Your task to perform on an android device: Play the last video I watched on Youtube Image 0: 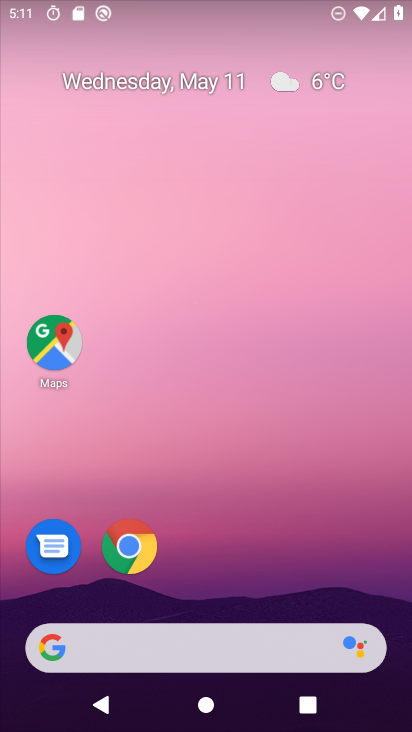
Step 0: drag from (210, 618) to (227, 184)
Your task to perform on an android device: Play the last video I watched on Youtube Image 1: 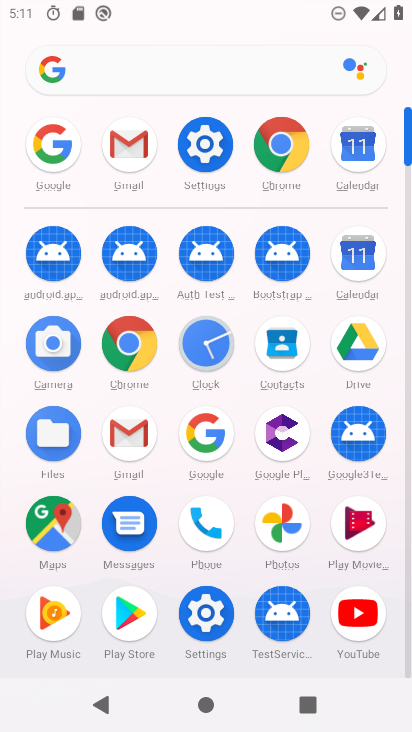
Step 1: click (360, 611)
Your task to perform on an android device: Play the last video I watched on Youtube Image 2: 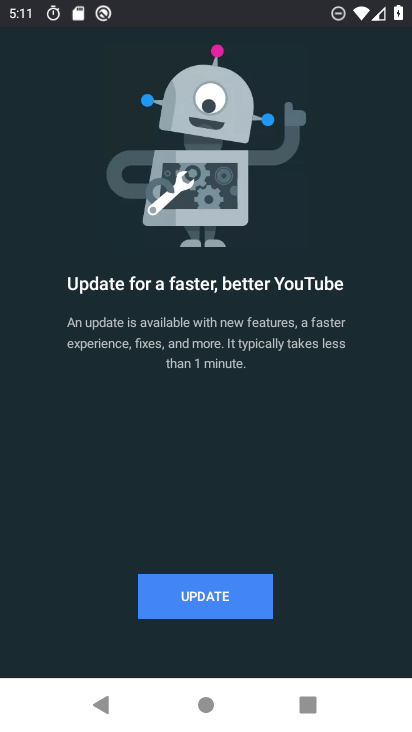
Step 2: click (214, 604)
Your task to perform on an android device: Play the last video I watched on Youtube Image 3: 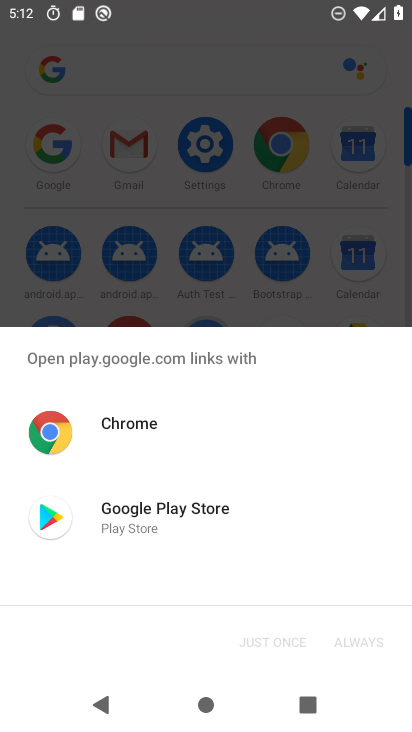
Step 3: click (158, 517)
Your task to perform on an android device: Play the last video I watched on Youtube Image 4: 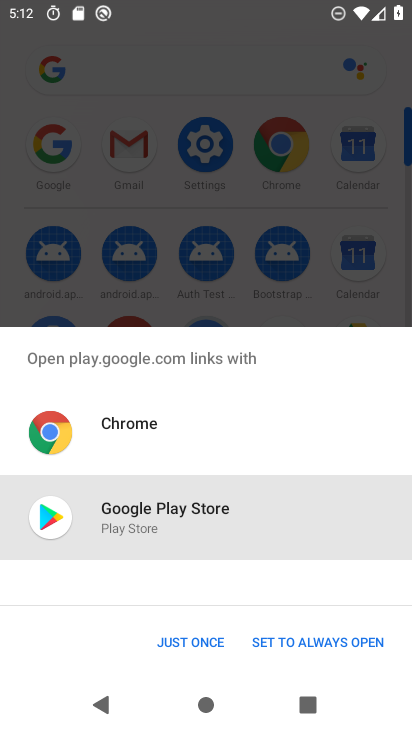
Step 4: click (295, 644)
Your task to perform on an android device: Play the last video I watched on Youtube Image 5: 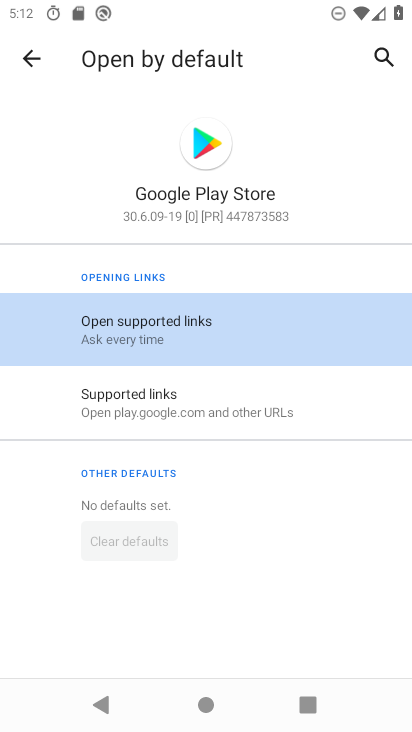
Step 5: click (199, 151)
Your task to perform on an android device: Play the last video I watched on Youtube Image 6: 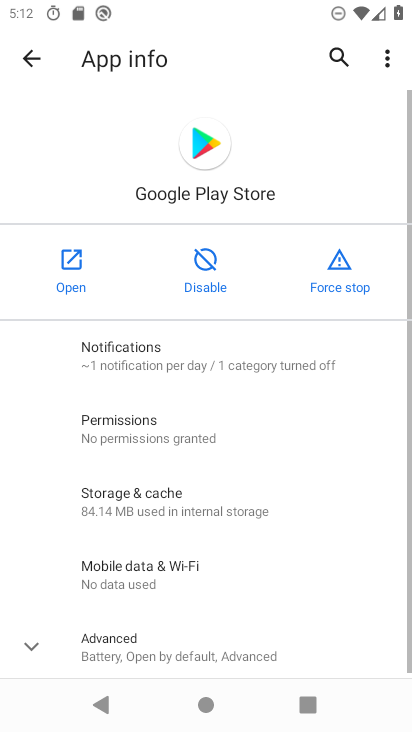
Step 6: click (221, 208)
Your task to perform on an android device: Play the last video I watched on Youtube Image 7: 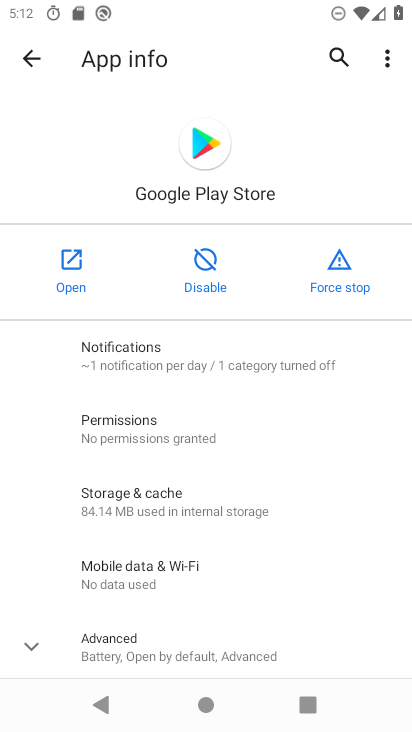
Step 7: click (77, 263)
Your task to perform on an android device: Play the last video I watched on Youtube Image 8: 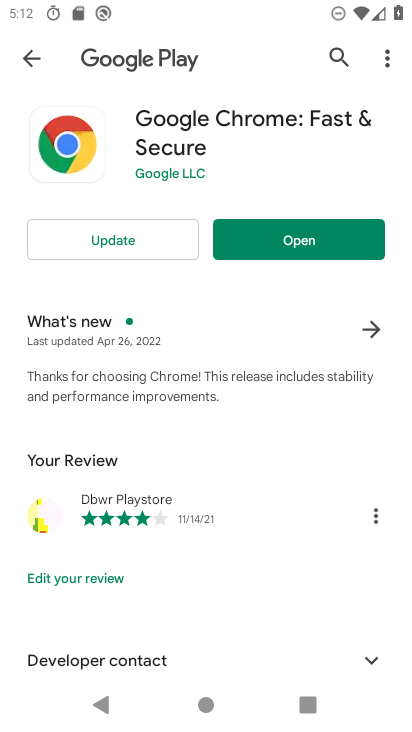
Step 8: click (336, 55)
Your task to perform on an android device: Play the last video I watched on Youtube Image 9: 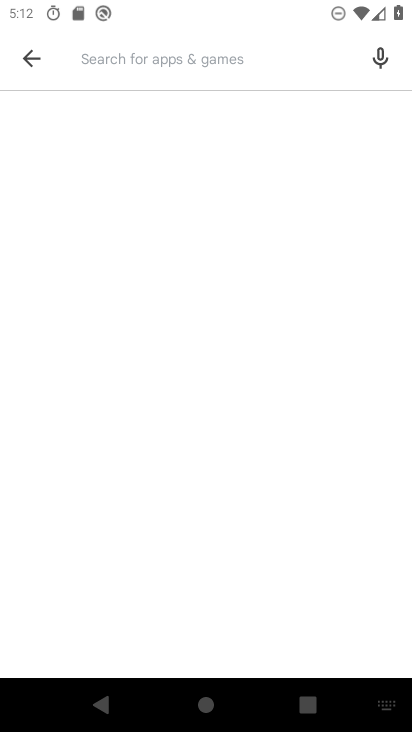
Step 9: click (138, 60)
Your task to perform on an android device: Play the last video I watched on Youtube Image 10: 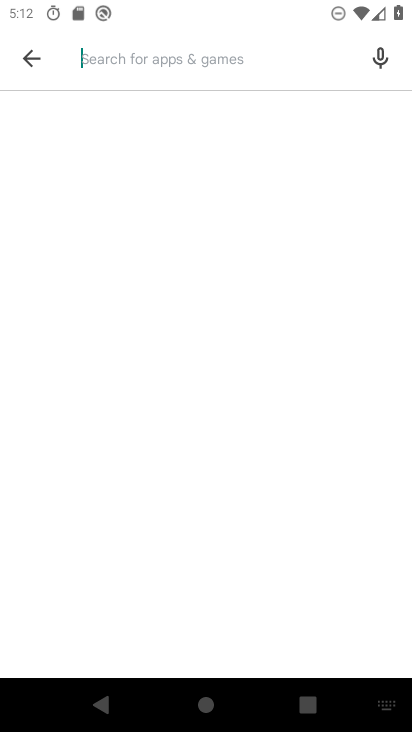
Step 10: type "youtube"
Your task to perform on an android device: Play the last video I watched on Youtube Image 11: 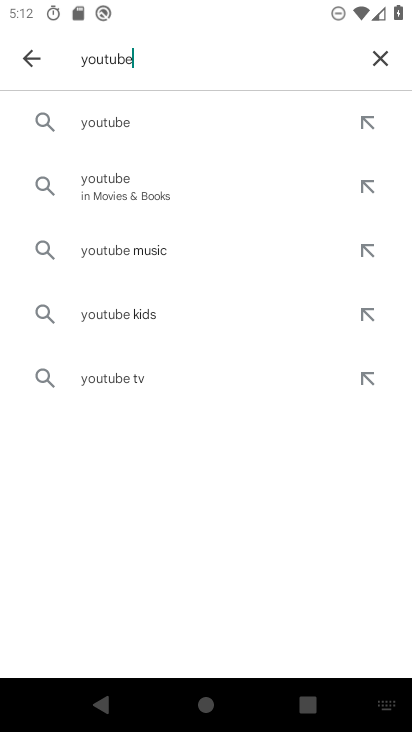
Step 11: click (103, 121)
Your task to perform on an android device: Play the last video I watched on Youtube Image 12: 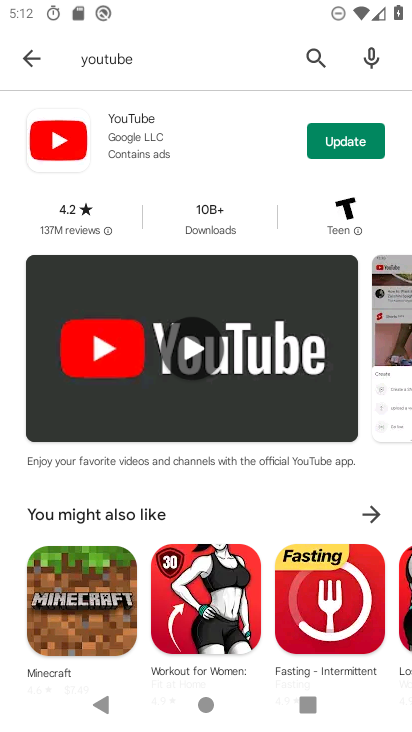
Step 12: click (341, 145)
Your task to perform on an android device: Play the last video I watched on Youtube Image 13: 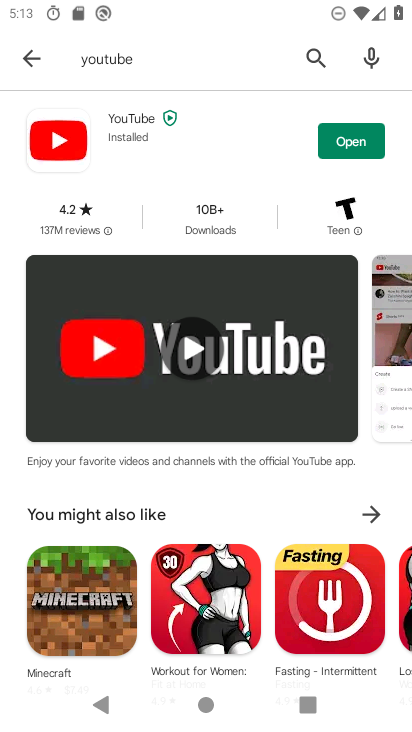
Step 13: click (350, 145)
Your task to perform on an android device: Play the last video I watched on Youtube Image 14: 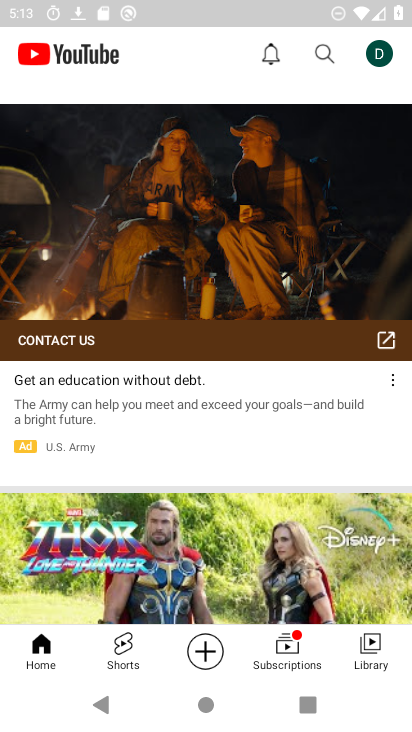
Step 14: click (358, 647)
Your task to perform on an android device: Play the last video I watched on Youtube Image 15: 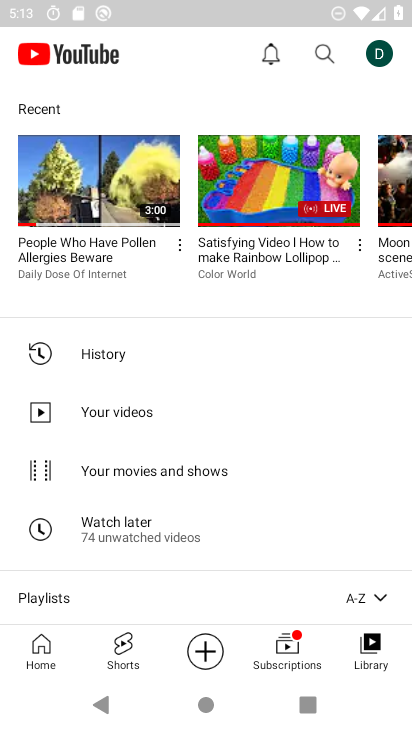
Step 15: click (81, 204)
Your task to perform on an android device: Play the last video I watched on Youtube Image 16: 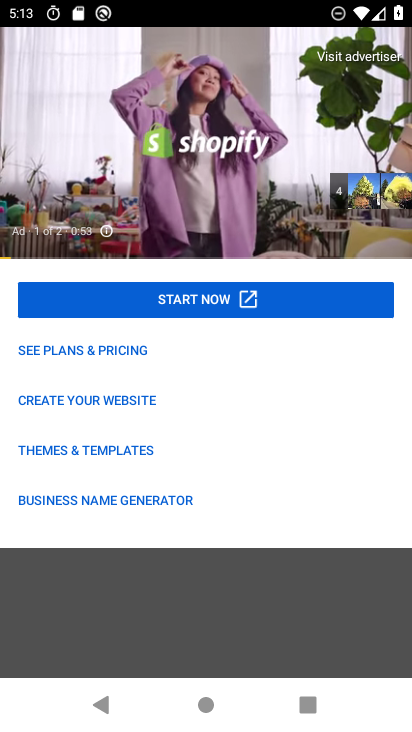
Step 16: task complete